Your task to perform on an android device: set the timer Image 0: 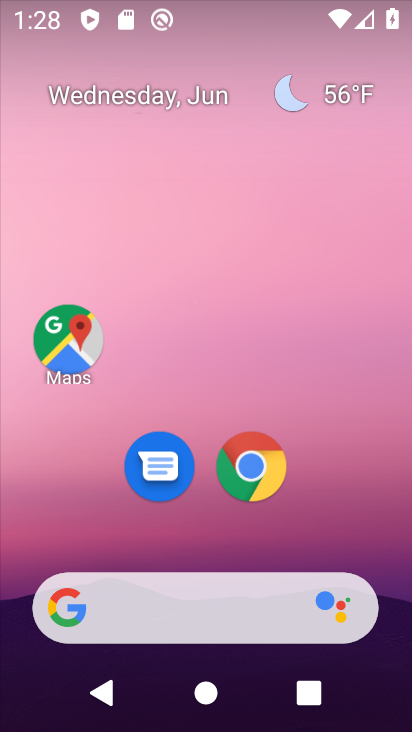
Step 0: drag from (141, 450) to (181, 237)
Your task to perform on an android device: set the timer Image 1: 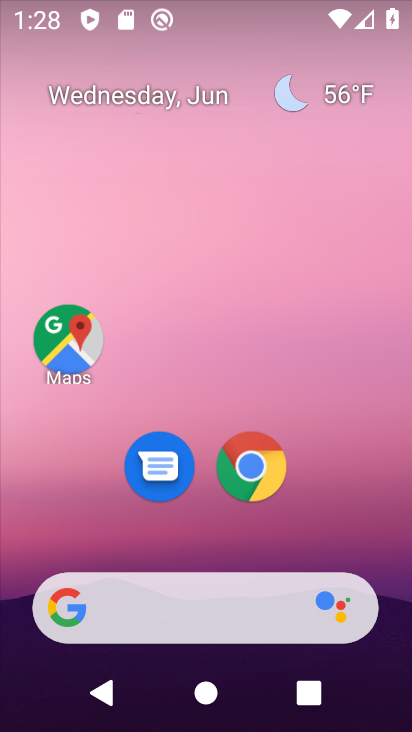
Step 1: drag from (113, 566) to (184, 165)
Your task to perform on an android device: set the timer Image 2: 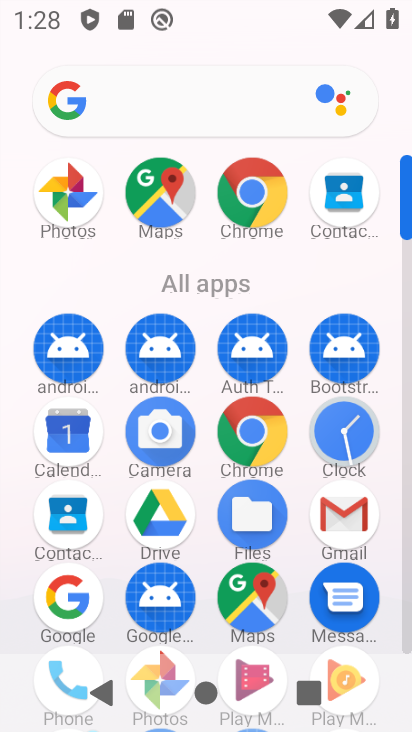
Step 2: click (351, 428)
Your task to perform on an android device: set the timer Image 3: 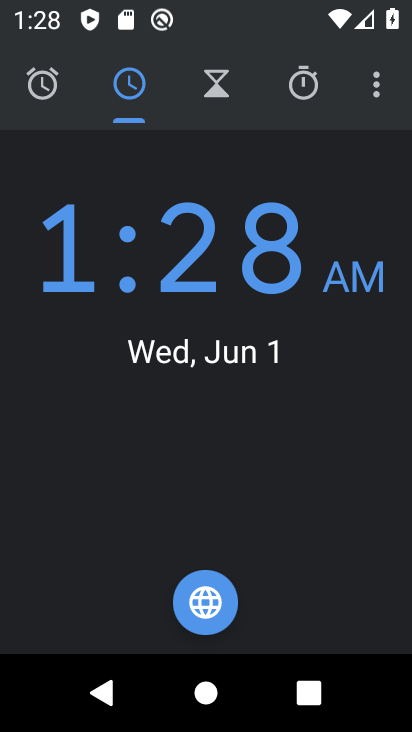
Step 3: click (230, 102)
Your task to perform on an android device: set the timer Image 4: 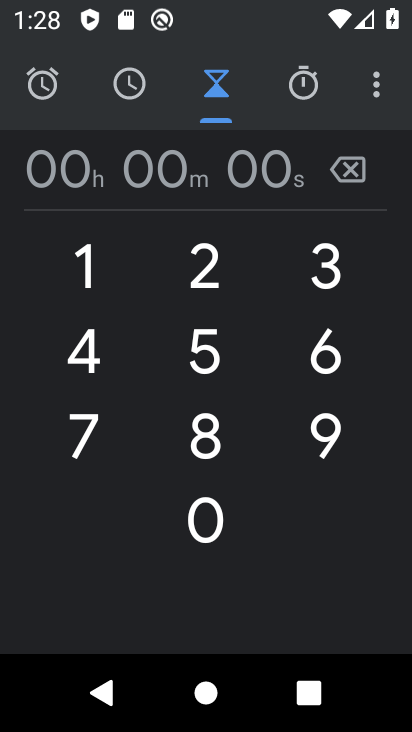
Step 4: click (209, 268)
Your task to perform on an android device: set the timer Image 5: 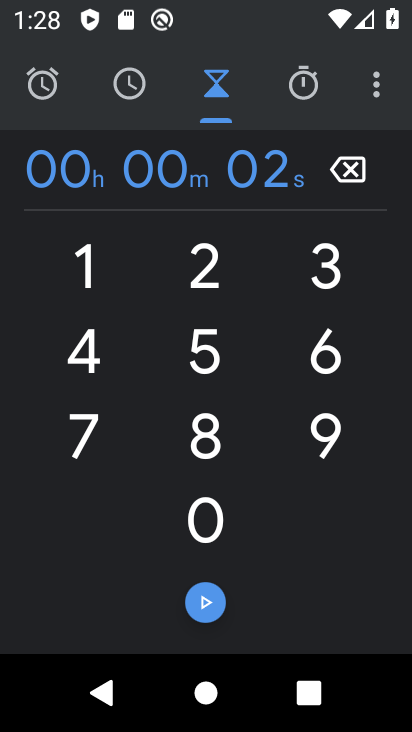
Step 5: click (208, 540)
Your task to perform on an android device: set the timer Image 6: 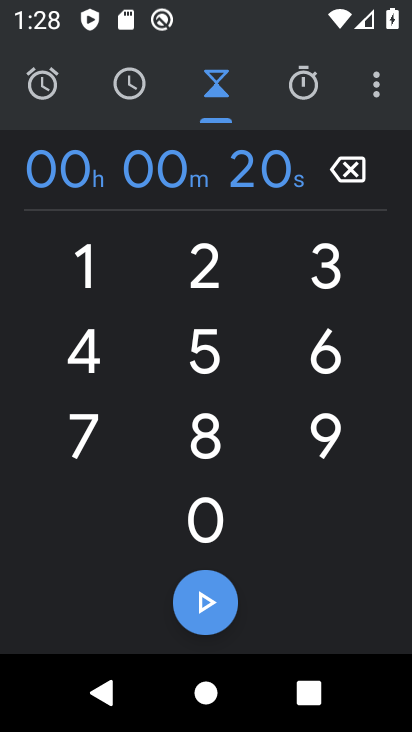
Step 6: click (207, 238)
Your task to perform on an android device: set the timer Image 7: 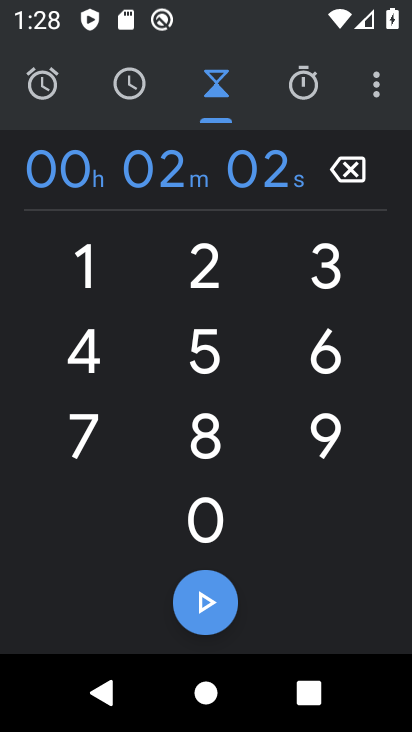
Step 7: click (206, 506)
Your task to perform on an android device: set the timer Image 8: 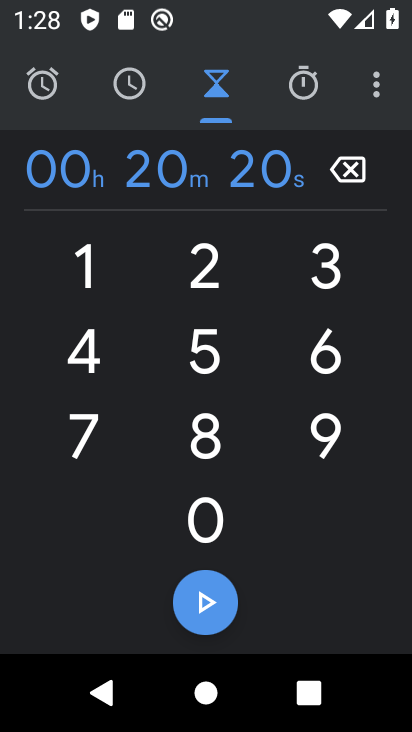
Step 8: click (221, 603)
Your task to perform on an android device: set the timer Image 9: 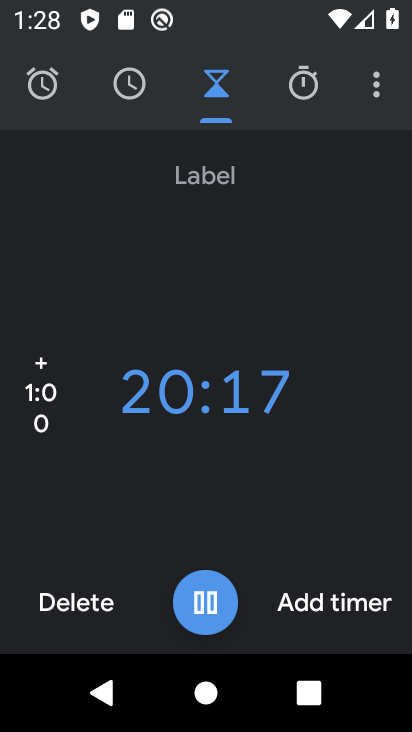
Step 9: task complete